Your task to perform on an android device: change keyboard looks Image 0: 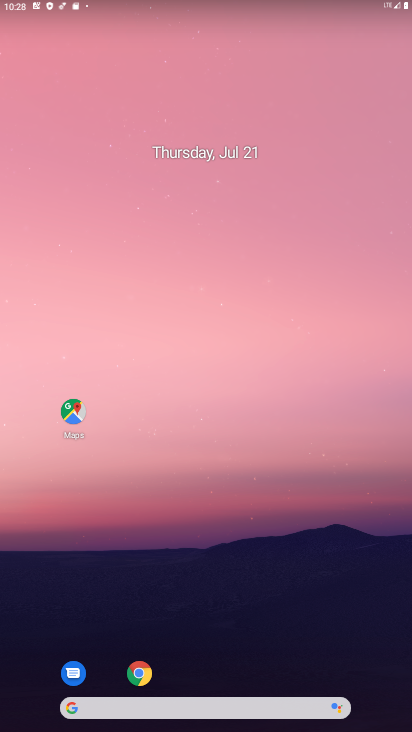
Step 0: drag from (210, 657) to (277, 22)
Your task to perform on an android device: change keyboard looks Image 1: 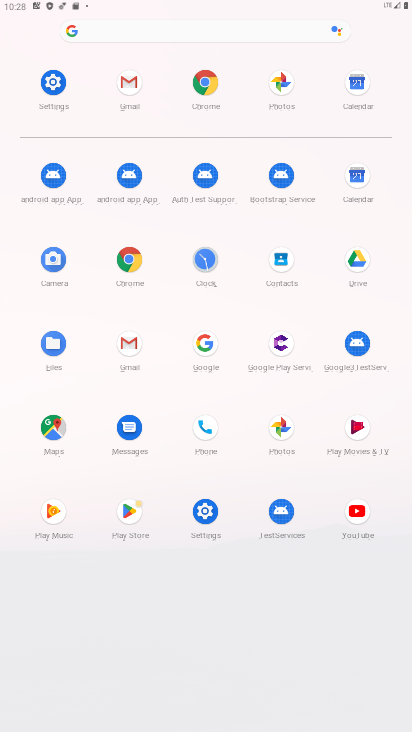
Step 1: click (219, 522)
Your task to perform on an android device: change keyboard looks Image 2: 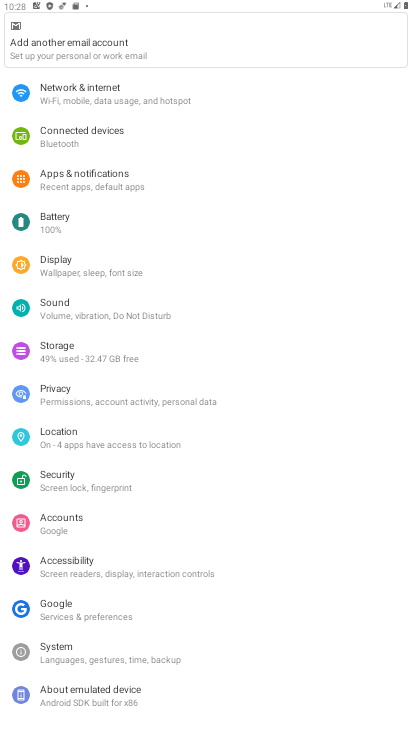
Step 2: drag from (192, 654) to (168, 144)
Your task to perform on an android device: change keyboard looks Image 3: 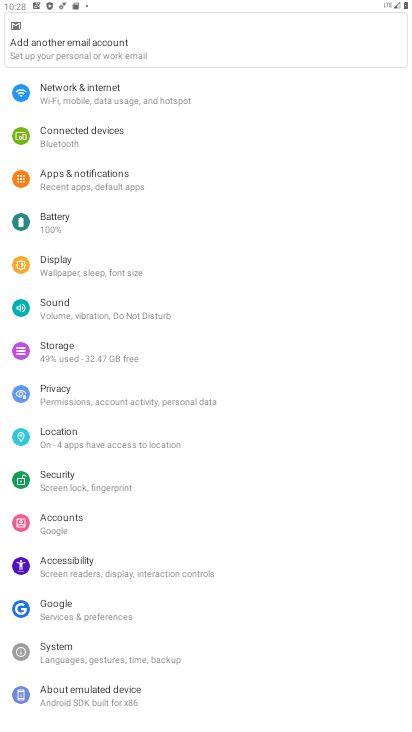
Step 3: click (131, 656)
Your task to perform on an android device: change keyboard looks Image 4: 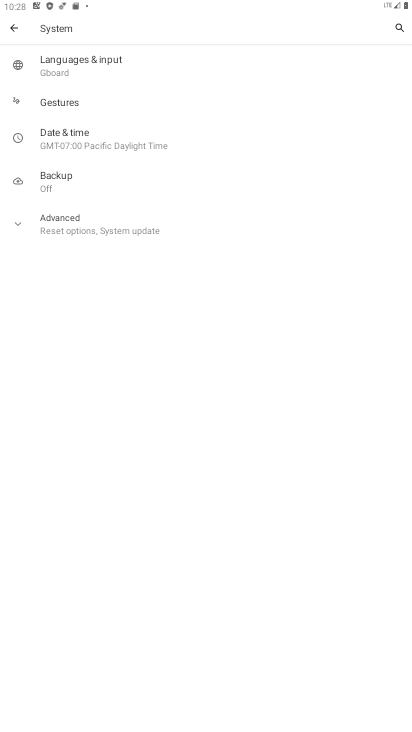
Step 4: click (88, 71)
Your task to perform on an android device: change keyboard looks Image 5: 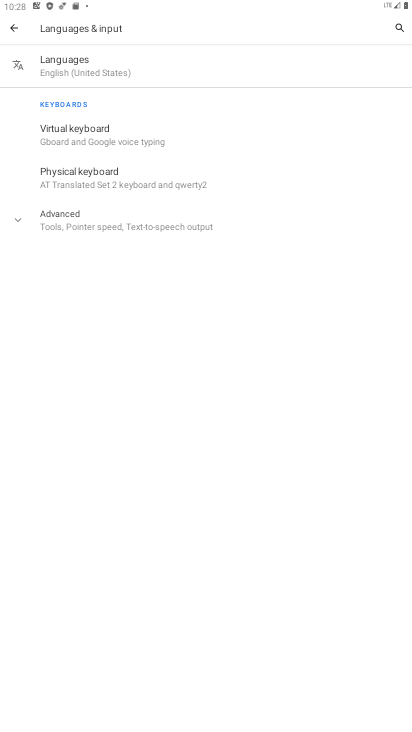
Step 5: click (128, 132)
Your task to perform on an android device: change keyboard looks Image 6: 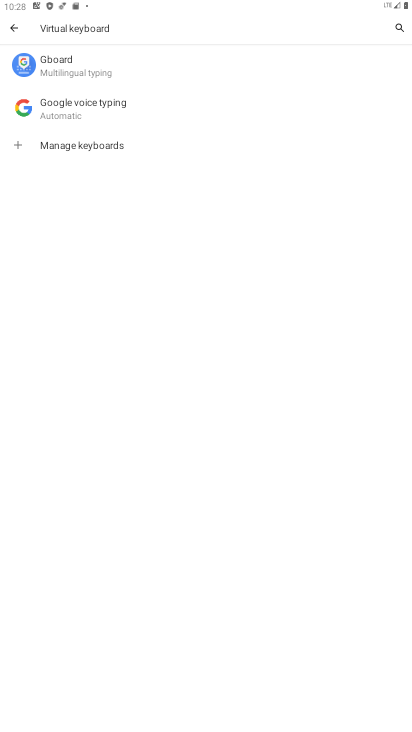
Step 6: click (88, 71)
Your task to perform on an android device: change keyboard looks Image 7: 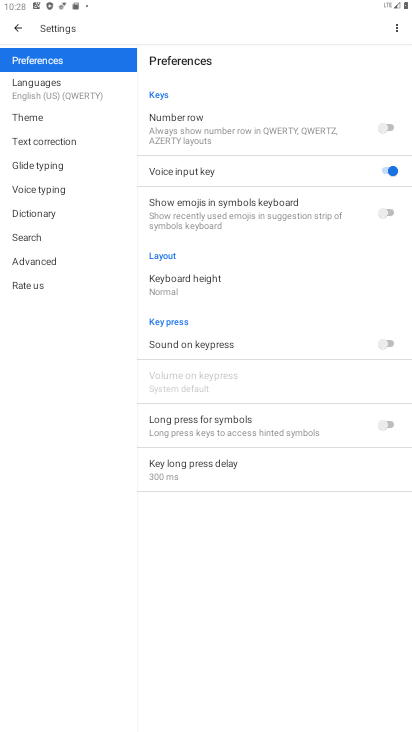
Step 7: click (43, 115)
Your task to perform on an android device: change keyboard looks Image 8: 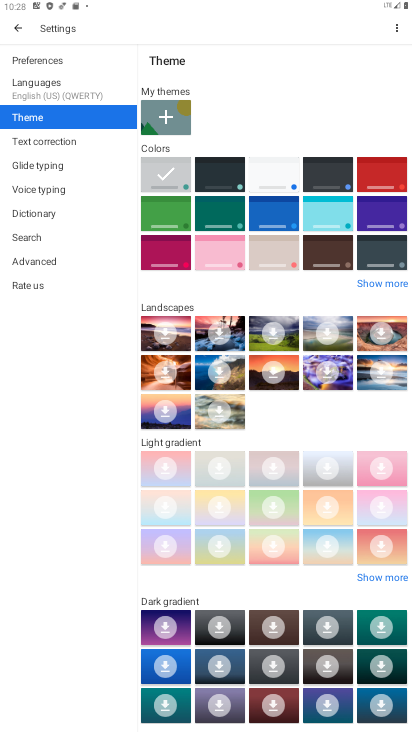
Step 8: click (281, 219)
Your task to perform on an android device: change keyboard looks Image 9: 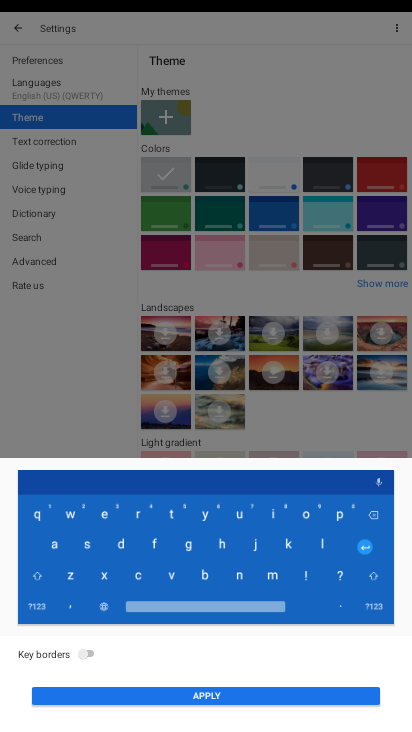
Step 9: click (236, 703)
Your task to perform on an android device: change keyboard looks Image 10: 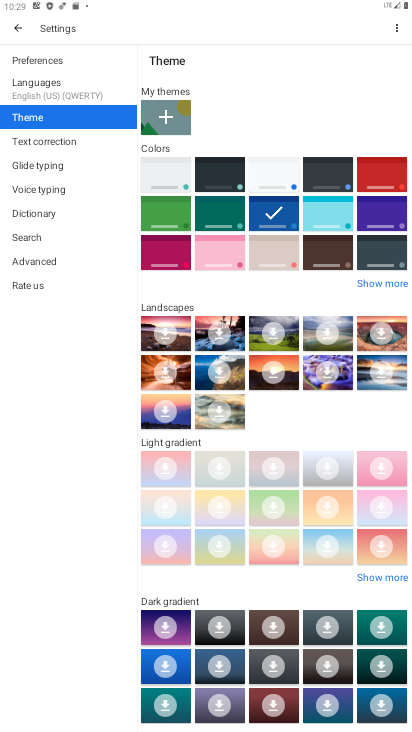
Step 10: task complete